Your task to perform on an android device: Go to settings Image 0: 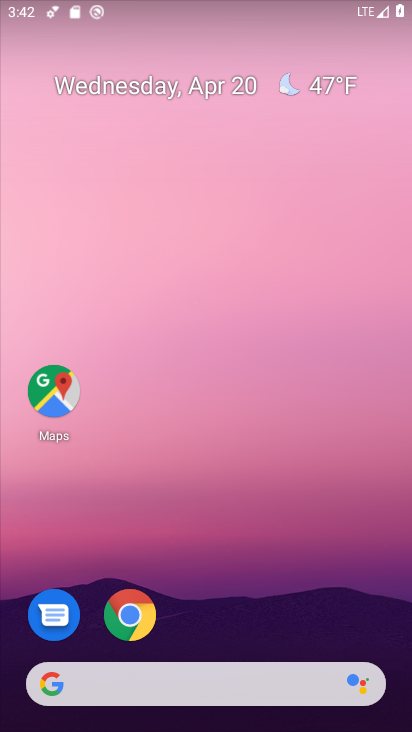
Step 0: drag from (228, 627) to (231, 118)
Your task to perform on an android device: Go to settings Image 1: 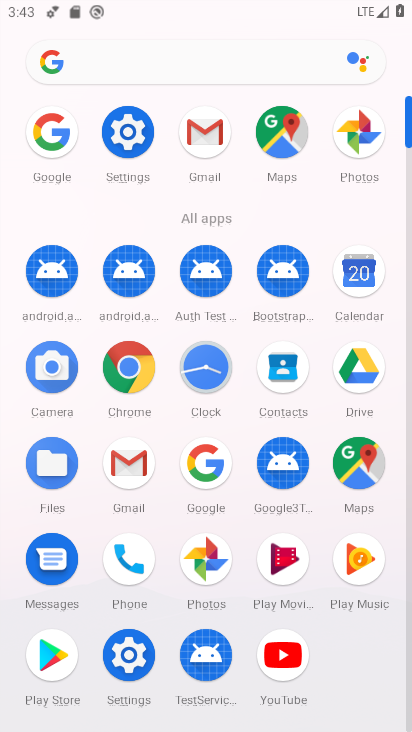
Step 1: click (144, 134)
Your task to perform on an android device: Go to settings Image 2: 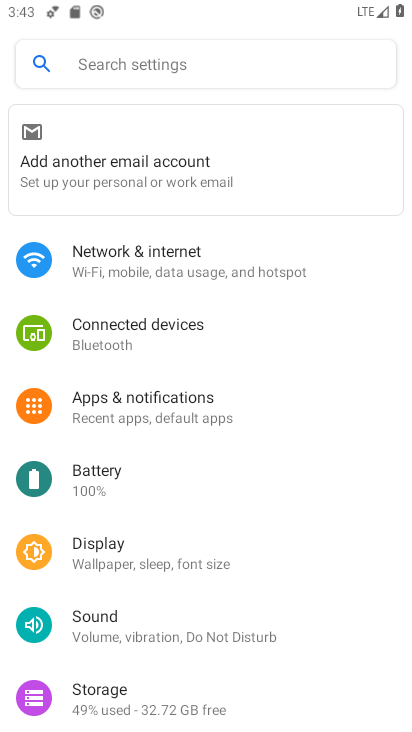
Step 2: task complete